Your task to perform on an android device: turn off location Image 0: 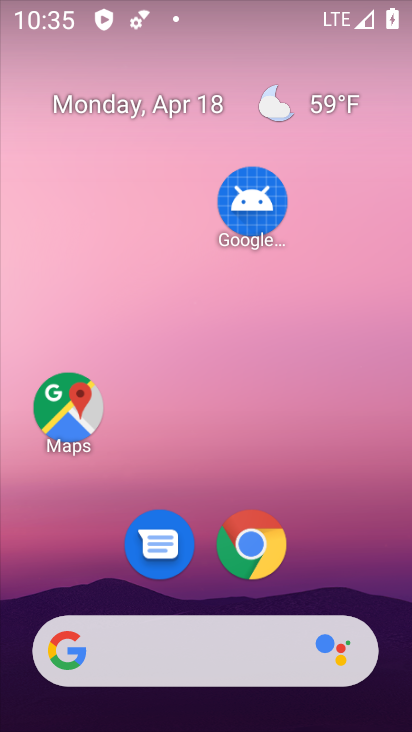
Step 0: drag from (269, 426) to (189, 146)
Your task to perform on an android device: turn off location Image 1: 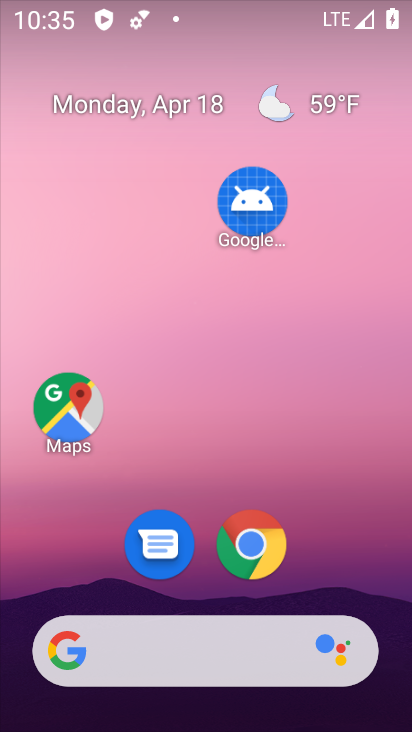
Step 1: drag from (328, 487) to (342, 123)
Your task to perform on an android device: turn off location Image 2: 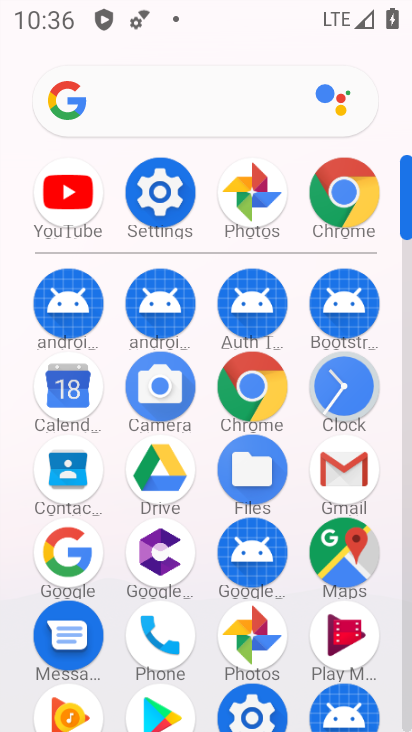
Step 2: click (262, 706)
Your task to perform on an android device: turn off location Image 3: 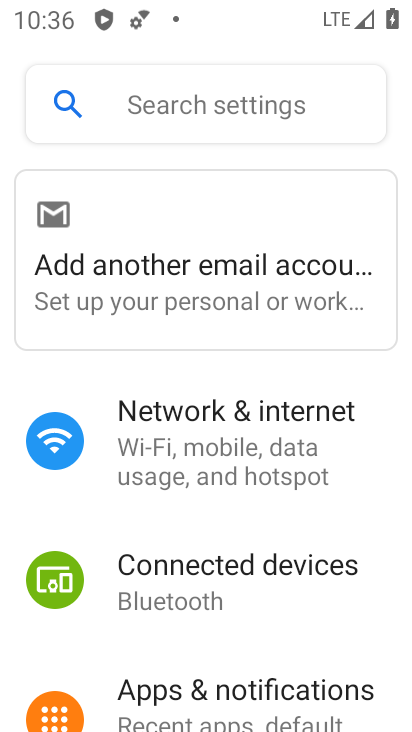
Step 3: drag from (254, 631) to (312, 105)
Your task to perform on an android device: turn off location Image 4: 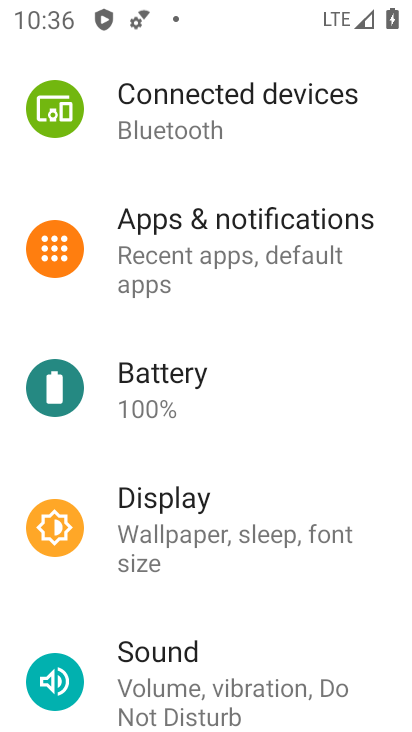
Step 4: drag from (229, 500) to (262, 110)
Your task to perform on an android device: turn off location Image 5: 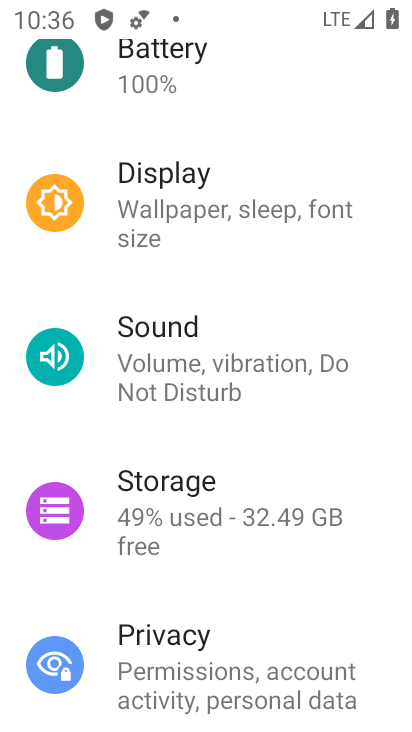
Step 5: drag from (233, 588) to (268, 193)
Your task to perform on an android device: turn off location Image 6: 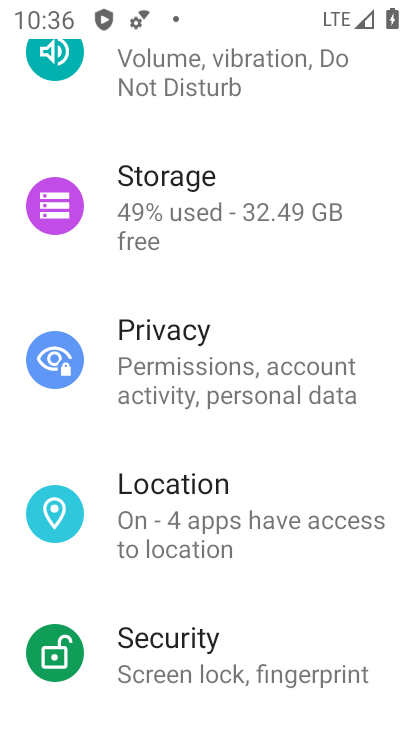
Step 6: click (191, 508)
Your task to perform on an android device: turn off location Image 7: 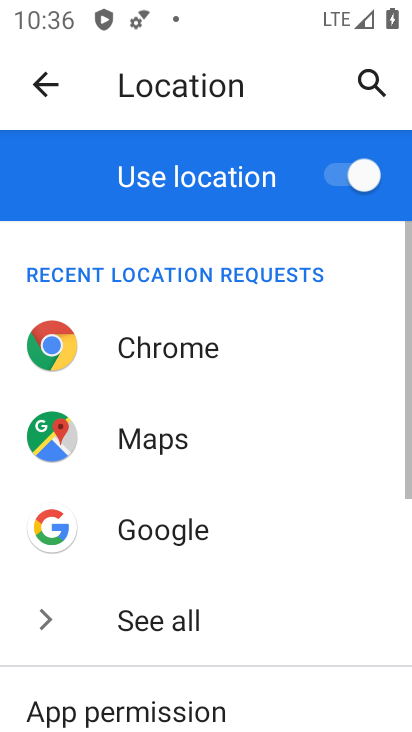
Step 7: drag from (248, 651) to (293, 269)
Your task to perform on an android device: turn off location Image 8: 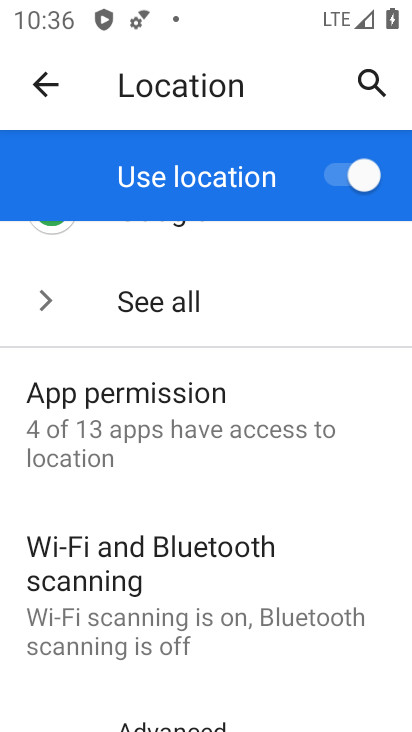
Step 8: click (338, 179)
Your task to perform on an android device: turn off location Image 9: 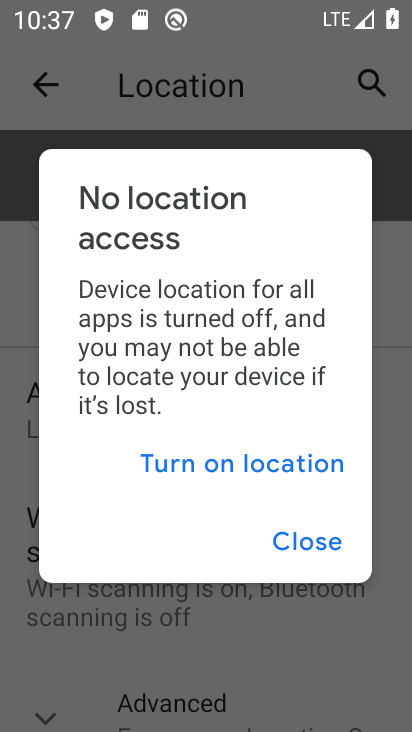
Step 9: click (293, 547)
Your task to perform on an android device: turn off location Image 10: 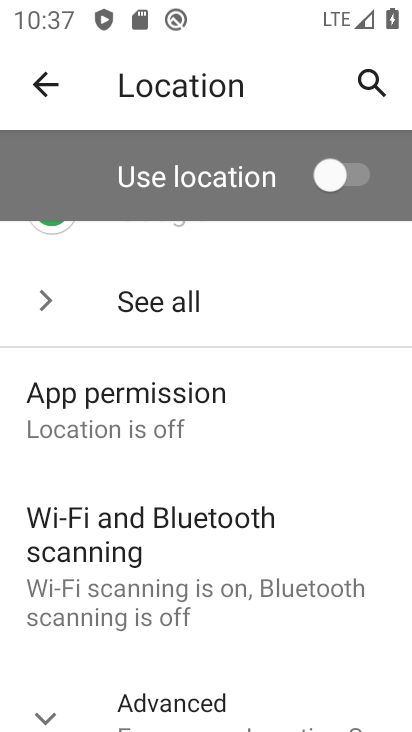
Step 10: task complete